Your task to perform on an android device: Open calendar and show me the first week of next month Image 0: 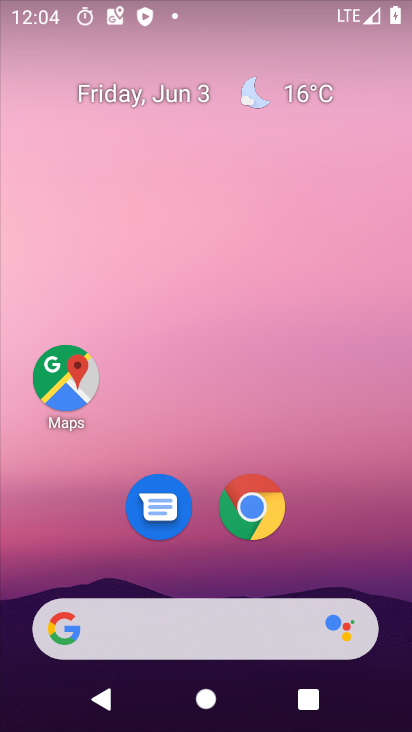
Step 0: drag from (385, 644) to (367, 388)
Your task to perform on an android device: Open calendar and show me the first week of next month Image 1: 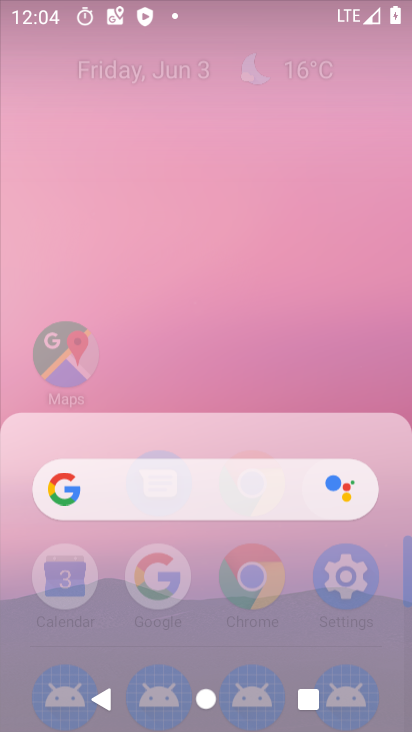
Step 1: drag from (287, 146) to (229, 50)
Your task to perform on an android device: Open calendar and show me the first week of next month Image 2: 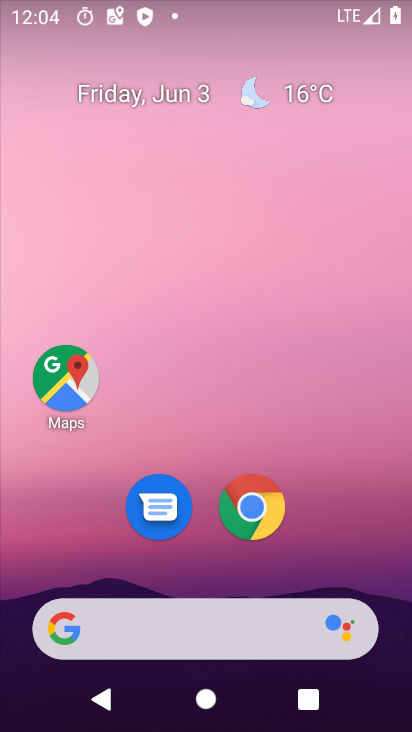
Step 2: drag from (341, 267) to (226, 14)
Your task to perform on an android device: Open calendar and show me the first week of next month Image 3: 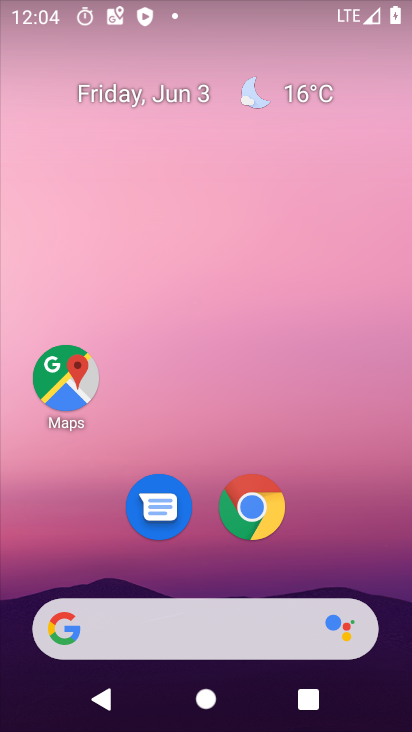
Step 3: drag from (397, 631) to (231, 4)
Your task to perform on an android device: Open calendar and show me the first week of next month Image 4: 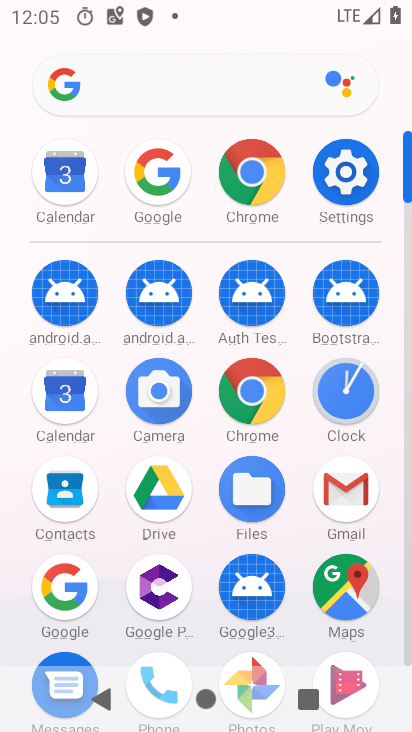
Step 4: click (82, 390)
Your task to perform on an android device: Open calendar and show me the first week of next month Image 5: 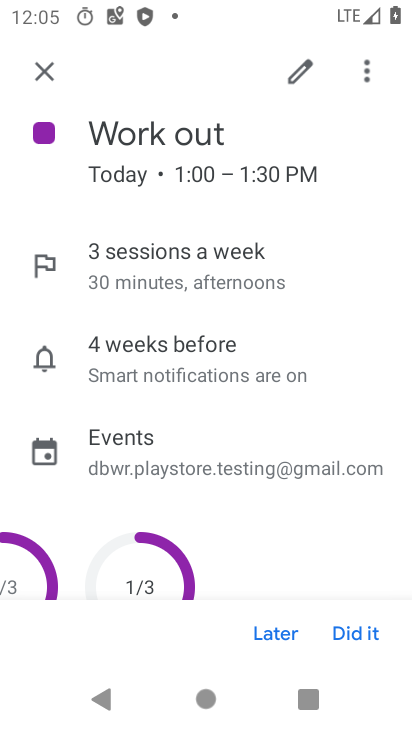
Step 5: press back button
Your task to perform on an android device: Open calendar and show me the first week of next month Image 6: 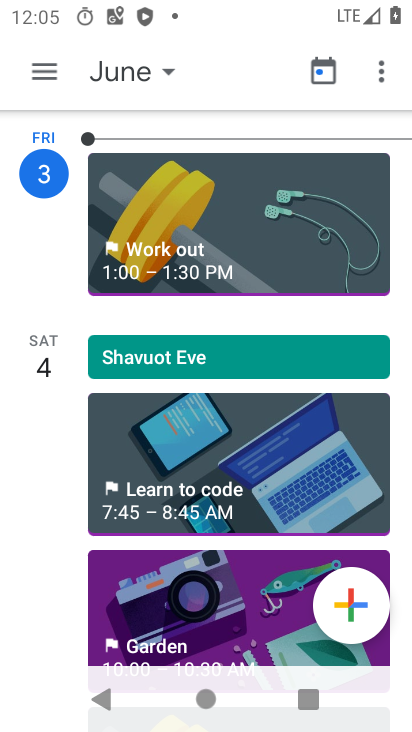
Step 6: click (114, 85)
Your task to perform on an android device: Open calendar and show me the first week of next month Image 7: 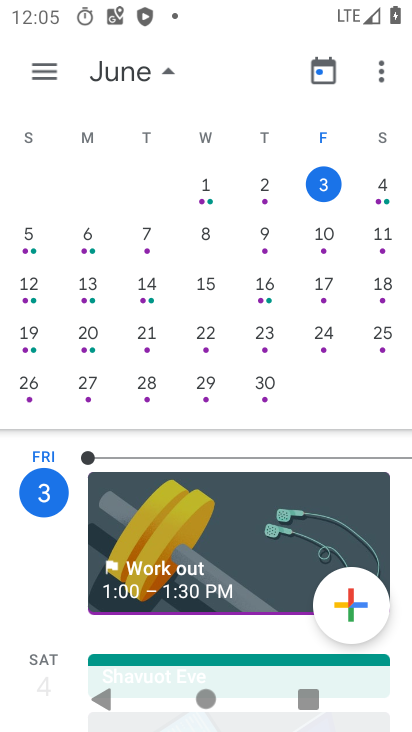
Step 7: drag from (388, 278) to (1, 239)
Your task to perform on an android device: Open calendar and show me the first week of next month Image 8: 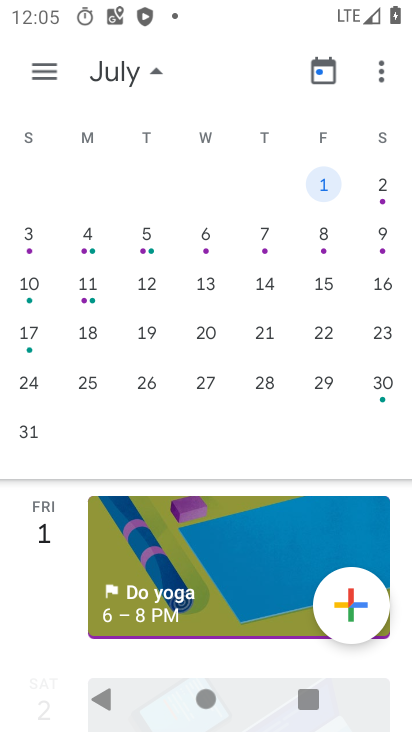
Step 8: click (88, 247)
Your task to perform on an android device: Open calendar and show me the first week of next month Image 9: 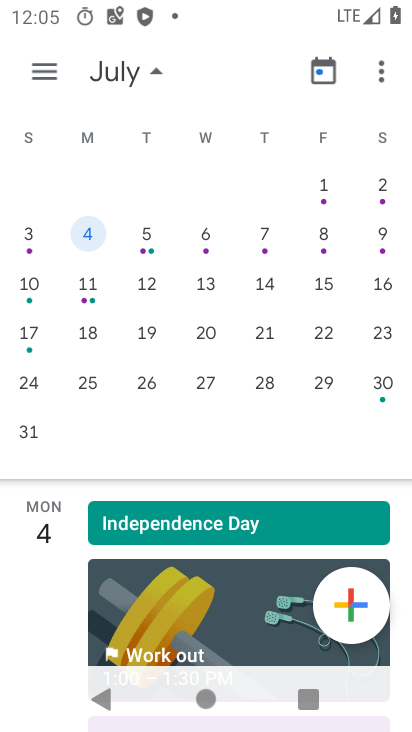
Step 9: task complete